Your task to perform on an android device: search for starred emails in the gmail app Image 0: 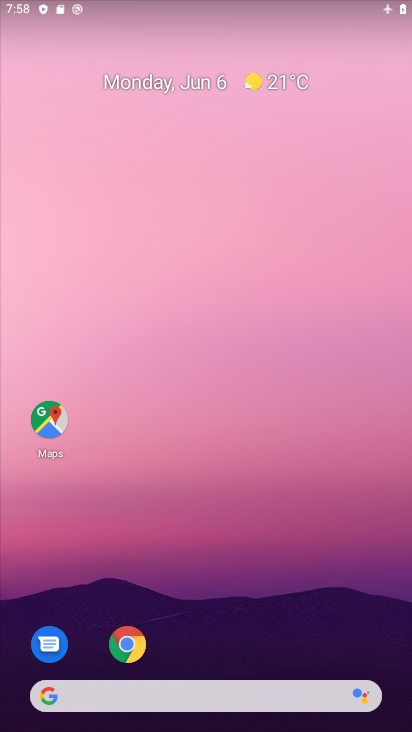
Step 0: drag from (225, 673) to (238, 53)
Your task to perform on an android device: search for starred emails in the gmail app Image 1: 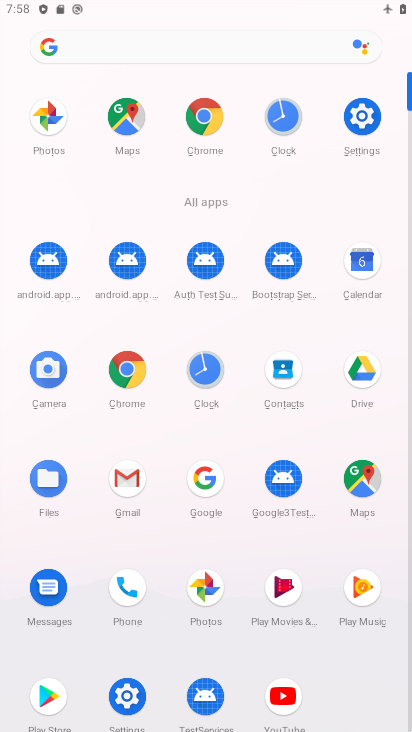
Step 1: click (126, 491)
Your task to perform on an android device: search for starred emails in the gmail app Image 2: 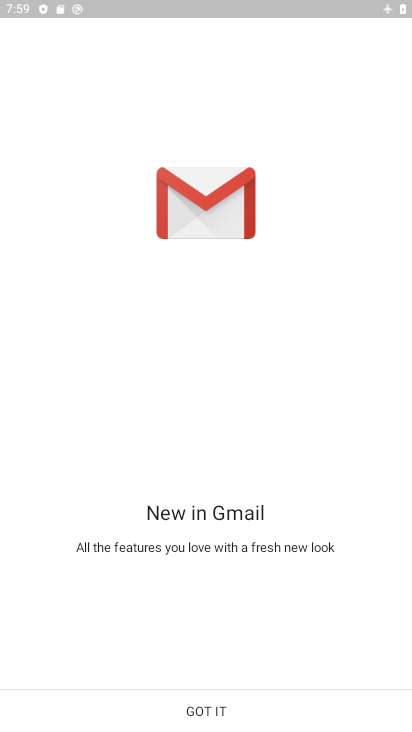
Step 2: click (278, 686)
Your task to perform on an android device: search for starred emails in the gmail app Image 3: 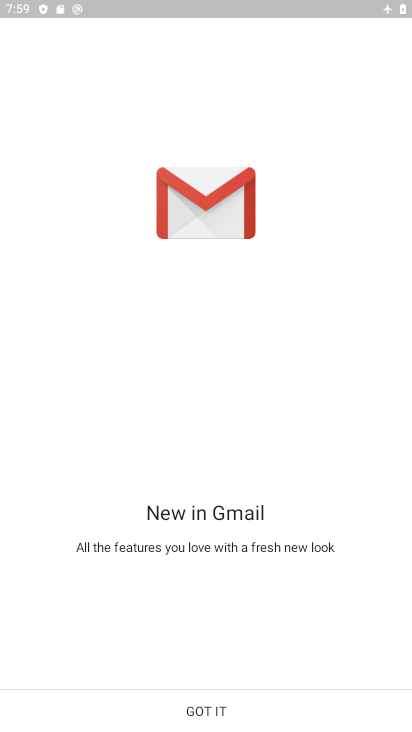
Step 3: click (238, 704)
Your task to perform on an android device: search for starred emails in the gmail app Image 4: 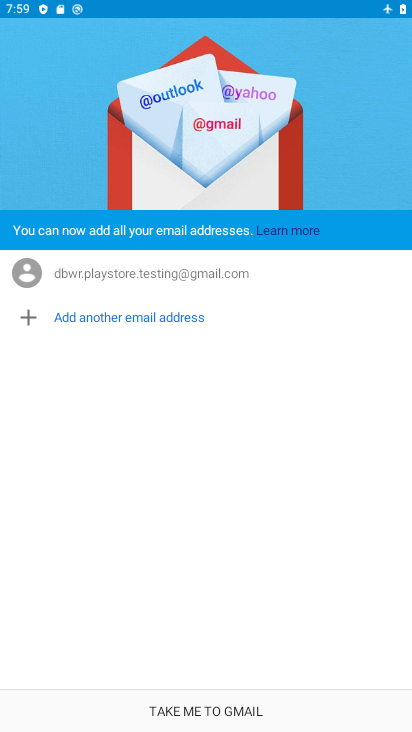
Step 4: press home button
Your task to perform on an android device: search for starred emails in the gmail app Image 5: 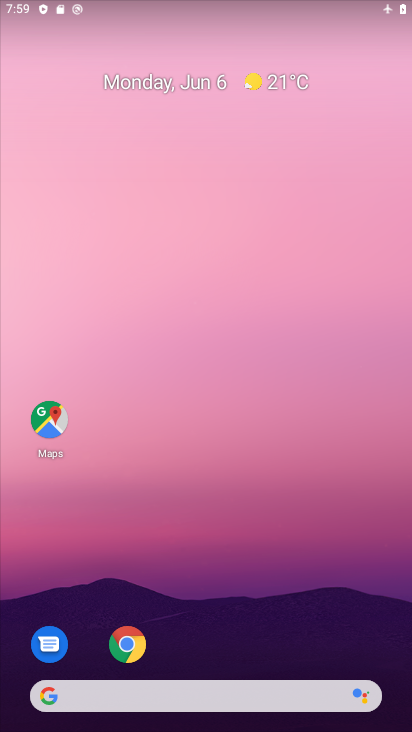
Step 5: drag from (177, 670) to (186, 28)
Your task to perform on an android device: search for starred emails in the gmail app Image 6: 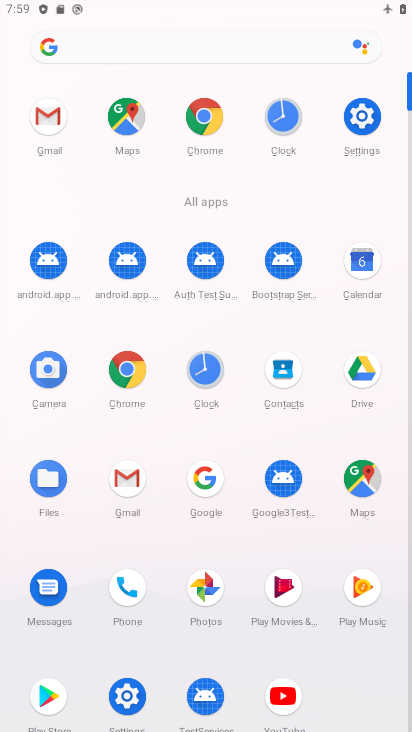
Step 6: click (120, 491)
Your task to perform on an android device: search for starred emails in the gmail app Image 7: 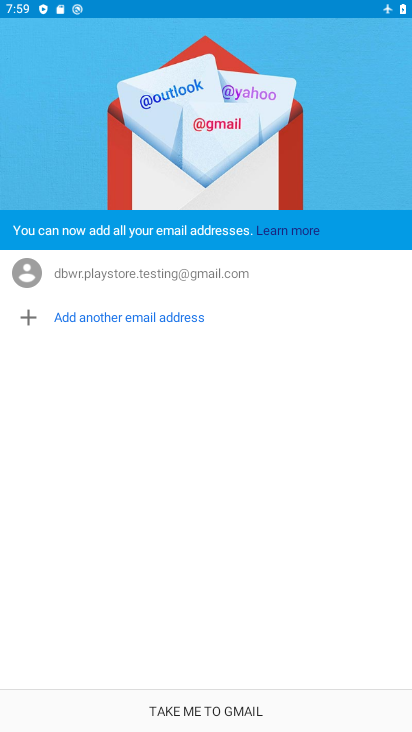
Step 7: click (216, 718)
Your task to perform on an android device: search for starred emails in the gmail app Image 8: 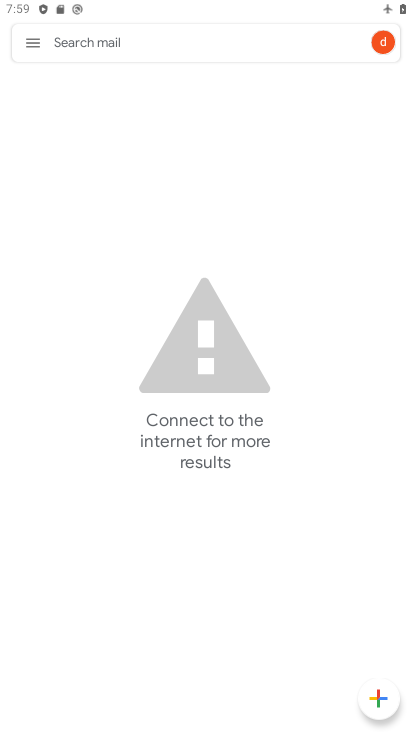
Step 8: click (31, 41)
Your task to perform on an android device: search for starred emails in the gmail app Image 9: 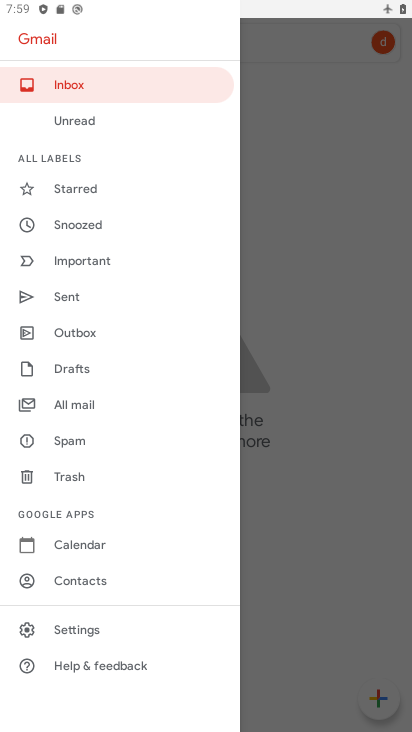
Step 9: click (91, 194)
Your task to perform on an android device: search for starred emails in the gmail app Image 10: 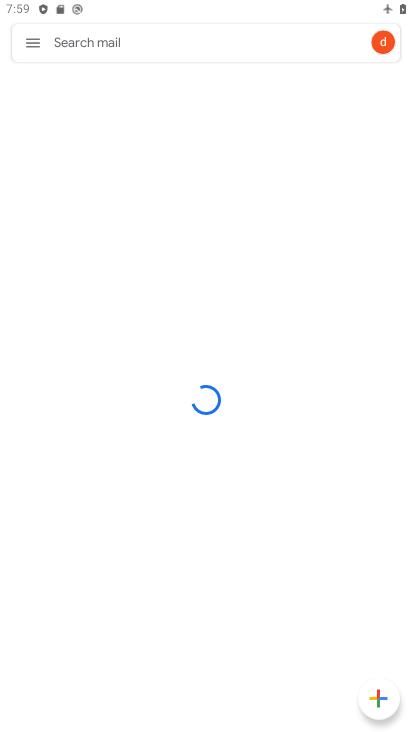
Step 10: task complete